Your task to perform on an android device: Open Wikipedia Image 0: 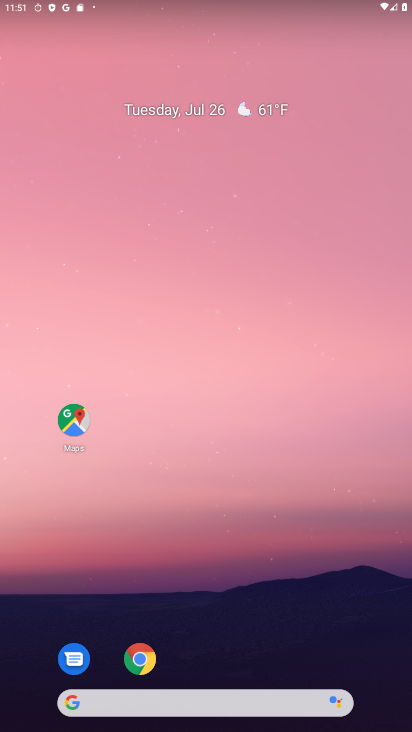
Step 0: click (139, 656)
Your task to perform on an android device: Open Wikipedia Image 1: 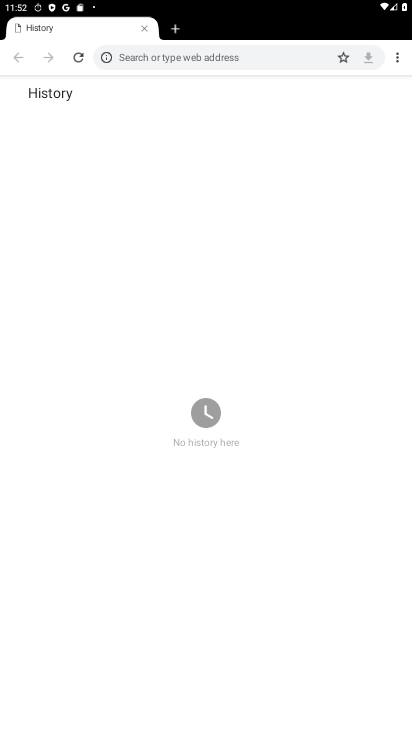
Step 1: click (176, 24)
Your task to perform on an android device: Open Wikipedia Image 2: 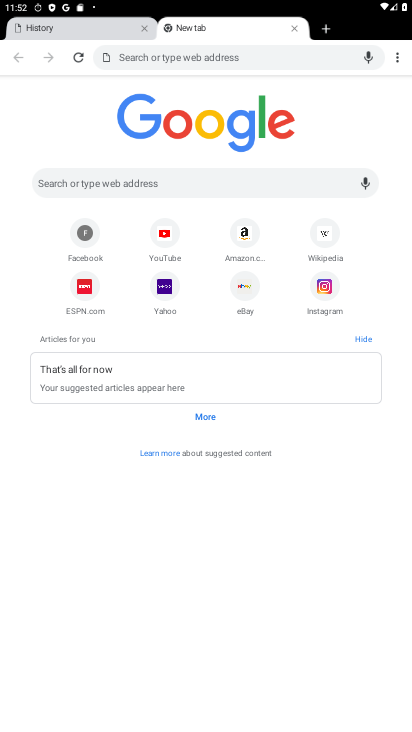
Step 2: click (323, 230)
Your task to perform on an android device: Open Wikipedia Image 3: 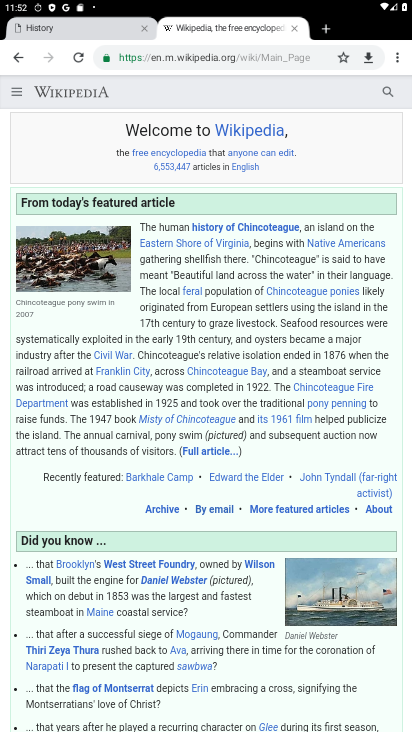
Step 3: task complete